Your task to perform on an android device: turn on translation in the chrome app Image 0: 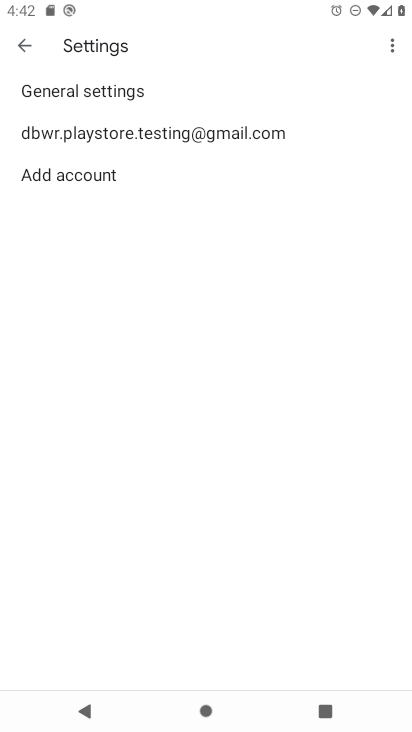
Step 0: press home button
Your task to perform on an android device: turn on translation in the chrome app Image 1: 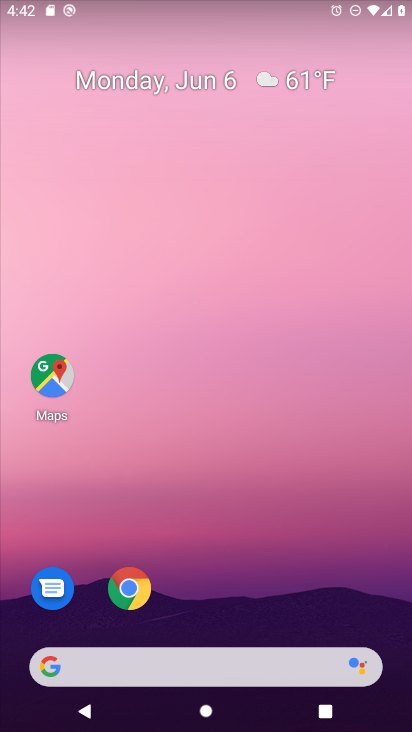
Step 1: click (129, 601)
Your task to perform on an android device: turn on translation in the chrome app Image 2: 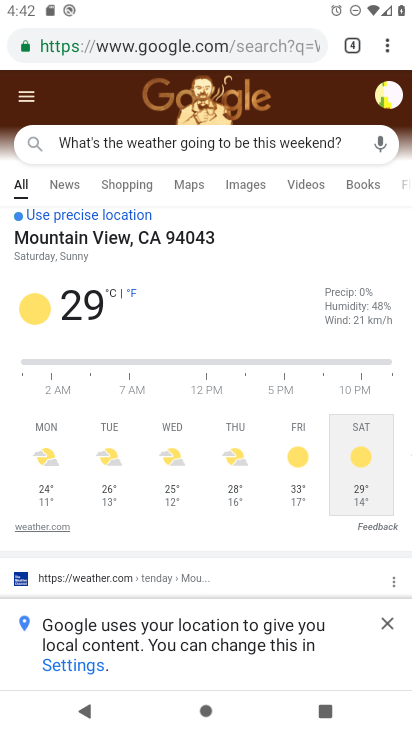
Step 2: click (396, 50)
Your task to perform on an android device: turn on translation in the chrome app Image 3: 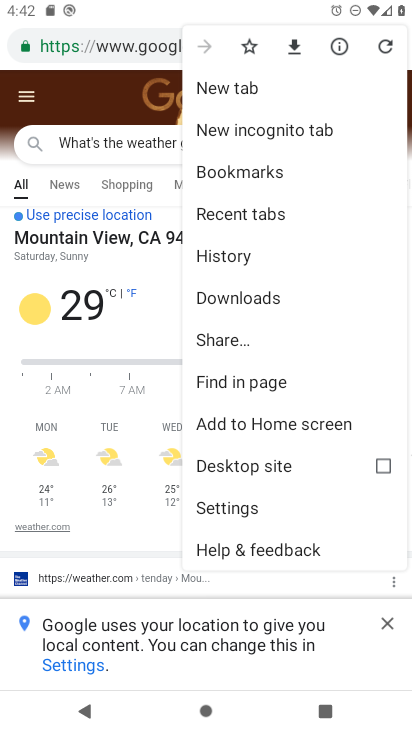
Step 3: click (272, 493)
Your task to perform on an android device: turn on translation in the chrome app Image 4: 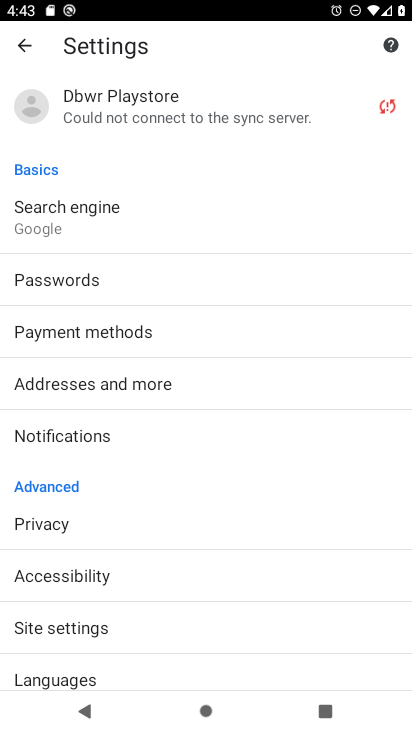
Step 4: click (136, 676)
Your task to perform on an android device: turn on translation in the chrome app Image 5: 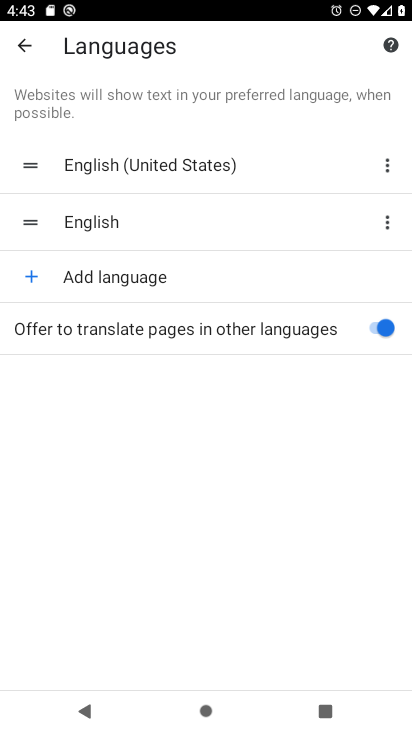
Step 5: task complete